Your task to perform on an android device: Open notification settings Image 0: 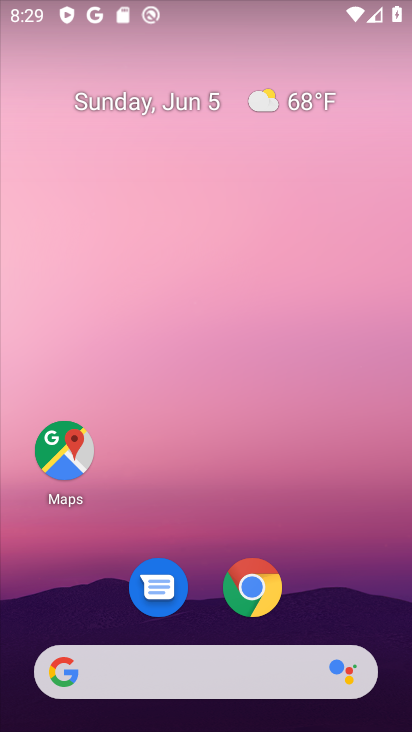
Step 0: drag from (338, 587) to (263, 5)
Your task to perform on an android device: Open notification settings Image 1: 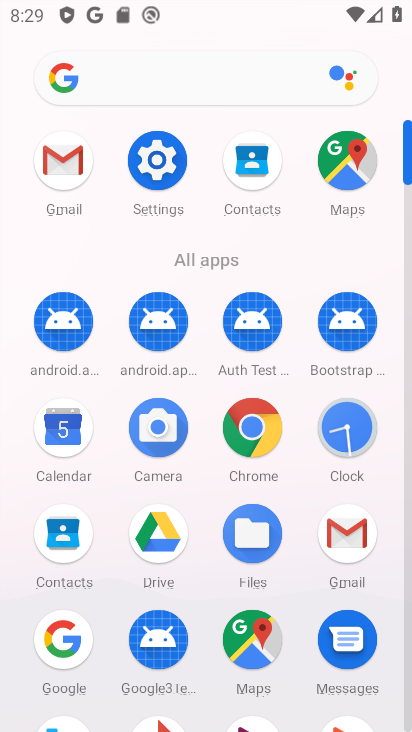
Step 1: click (150, 140)
Your task to perform on an android device: Open notification settings Image 2: 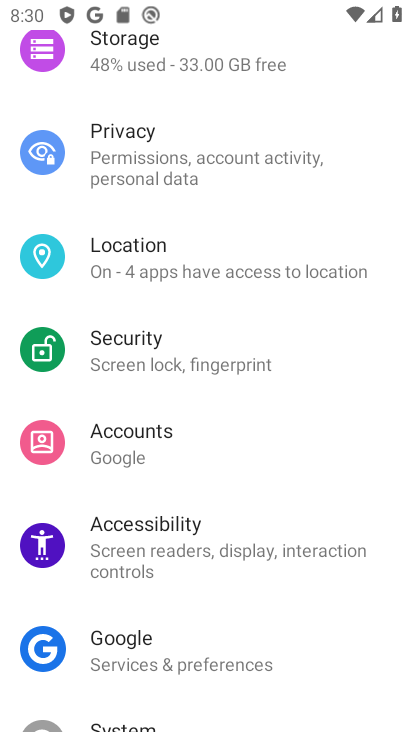
Step 2: drag from (221, 133) to (250, 502)
Your task to perform on an android device: Open notification settings Image 3: 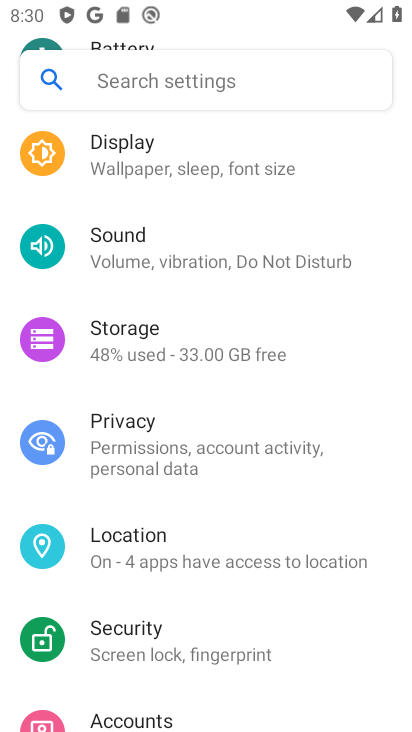
Step 3: drag from (204, 153) to (236, 323)
Your task to perform on an android device: Open notification settings Image 4: 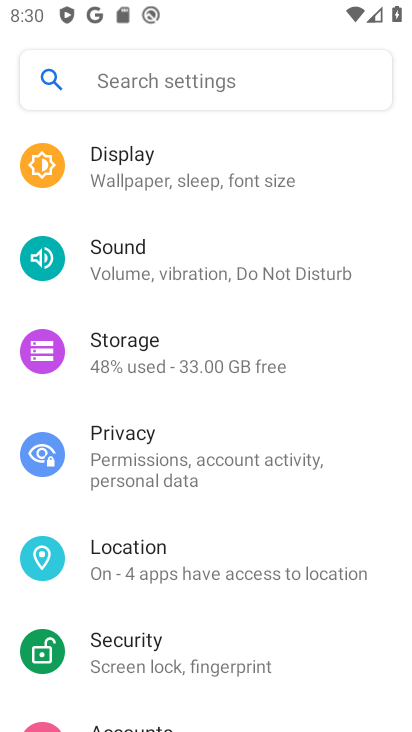
Step 4: drag from (229, 188) to (253, 590)
Your task to perform on an android device: Open notification settings Image 5: 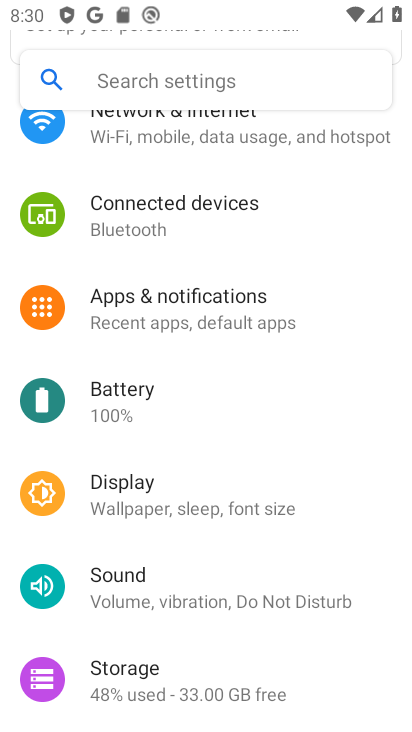
Step 5: click (208, 293)
Your task to perform on an android device: Open notification settings Image 6: 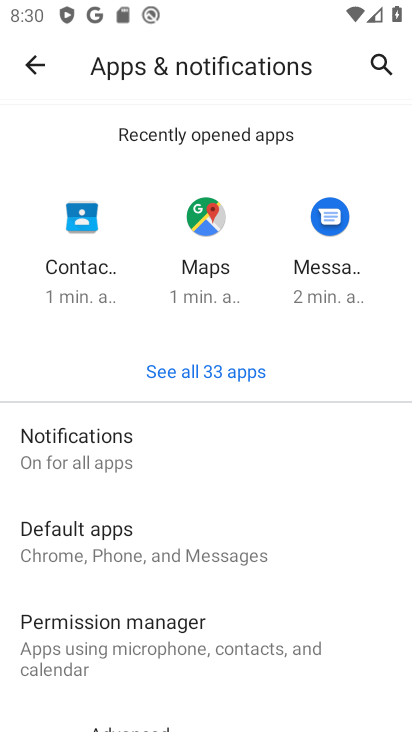
Step 6: click (130, 464)
Your task to perform on an android device: Open notification settings Image 7: 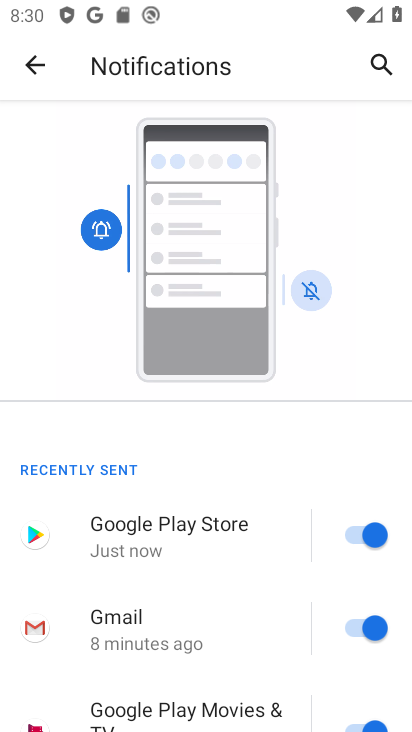
Step 7: task complete